Your task to perform on an android device: Go to ESPN.com Image 0: 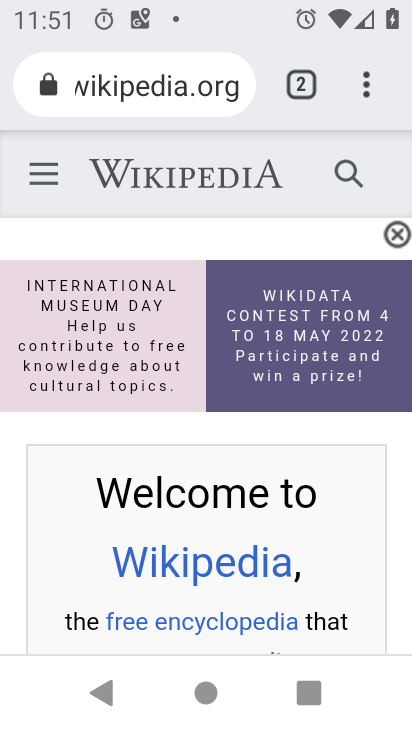
Step 0: press home button
Your task to perform on an android device: Go to ESPN.com Image 1: 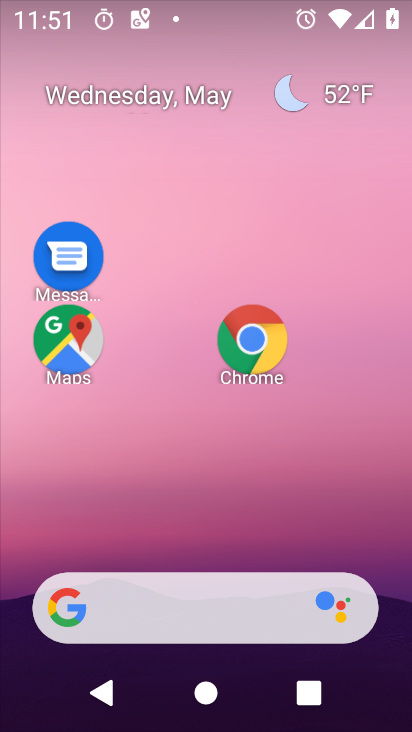
Step 1: drag from (199, 522) to (184, 68)
Your task to perform on an android device: Go to ESPN.com Image 2: 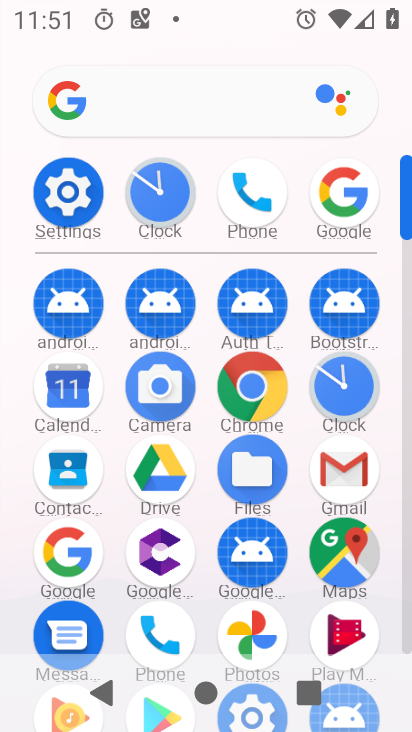
Step 2: click (352, 198)
Your task to perform on an android device: Go to ESPN.com Image 3: 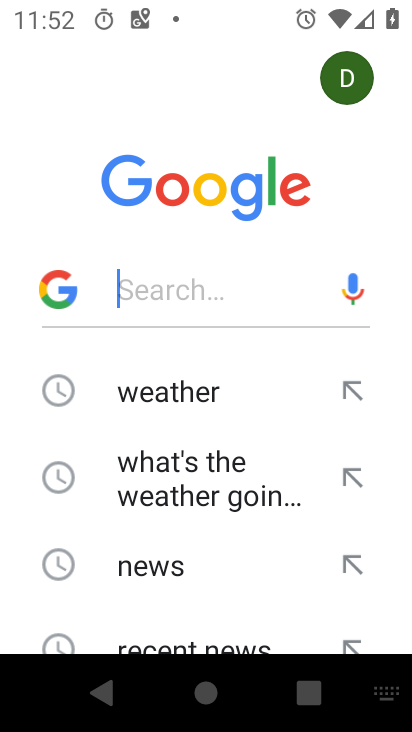
Step 3: type "espn.com"
Your task to perform on an android device: Go to ESPN.com Image 4: 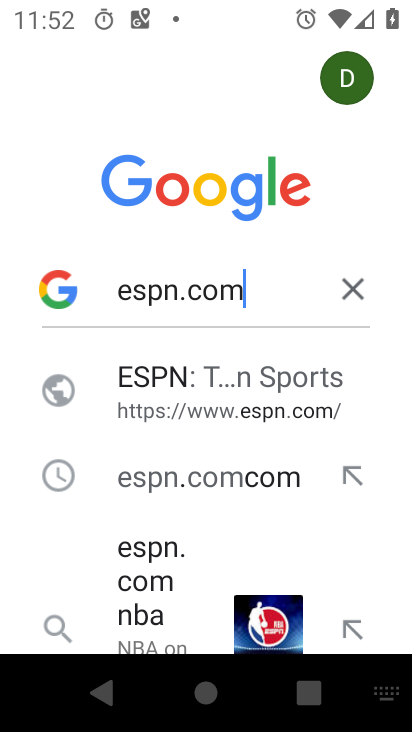
Step 4: click (195, 407)
Your task to perform on an android device: Go to ESPN.com Image 5: 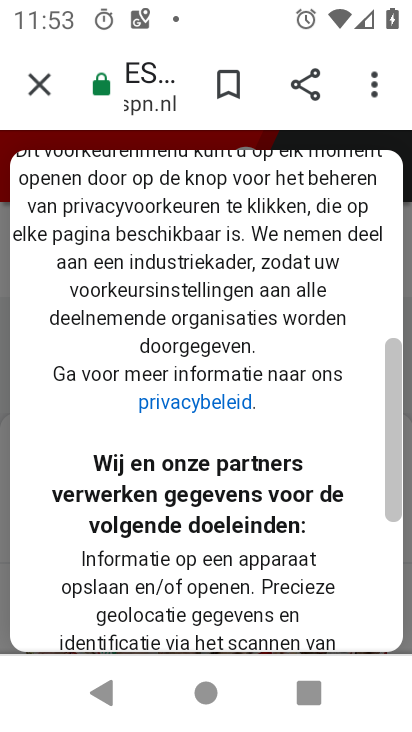
Step 5: task complete